Your task to perform on an android device: Open privacy settings Image 0: 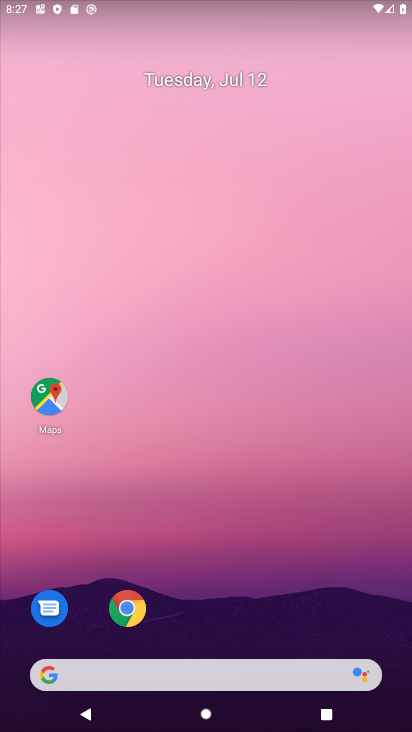
Step 0: drag from (242, 6) to (317, 662)
Your task to perform on an android device: Open privacy settings Image 1: 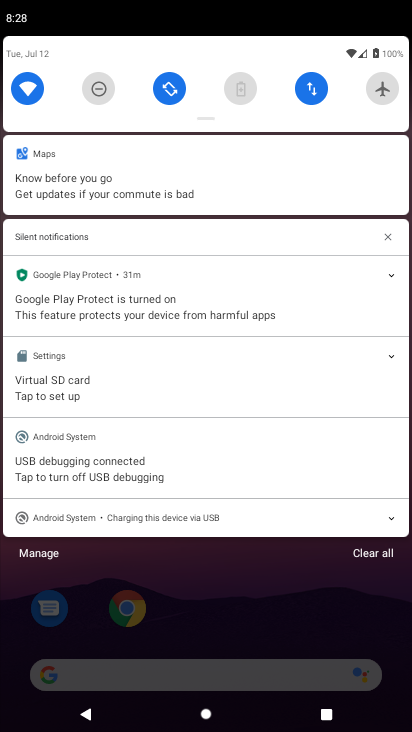
Step 1: drag from (259, 65) to (207, 653)
Your task to perform on an android device: Open privacy settings Image 2: 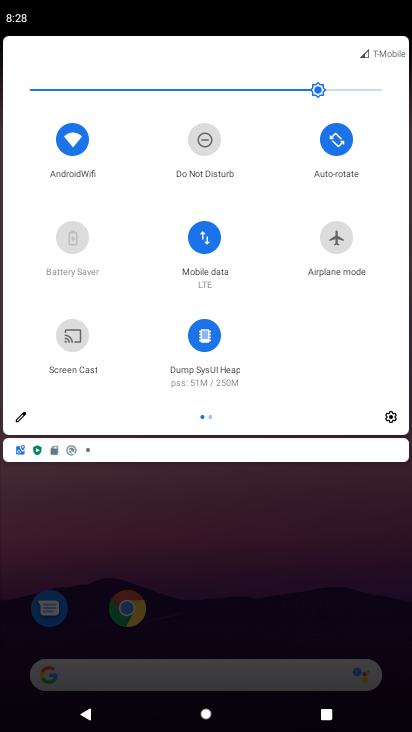
Step 2: click (384, 419)
Your task to perform on an android device: Open privacy settings Image 3: 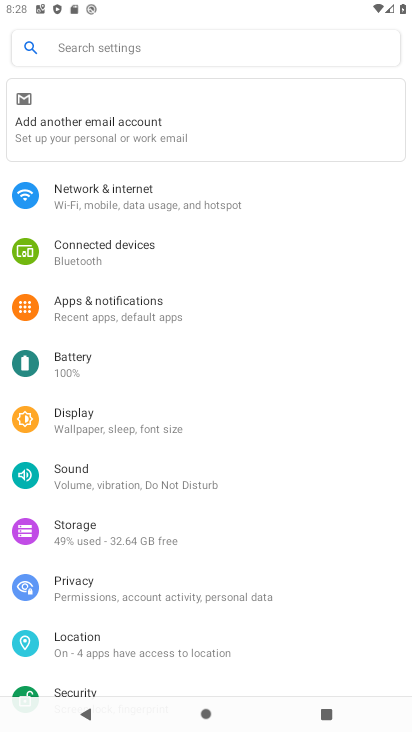
Step 3: click (97, 583)
Your task to perform on an android device: Open privacy settings Image 4: 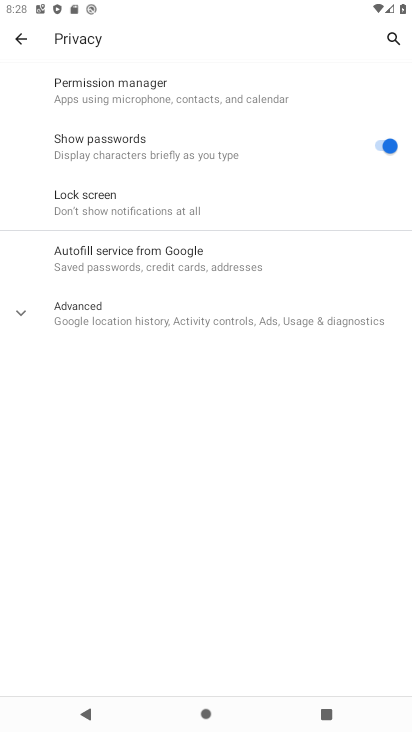
Step 4: task complete